Your task to perform on an android device: change notification settings in the gmail app Image 0: 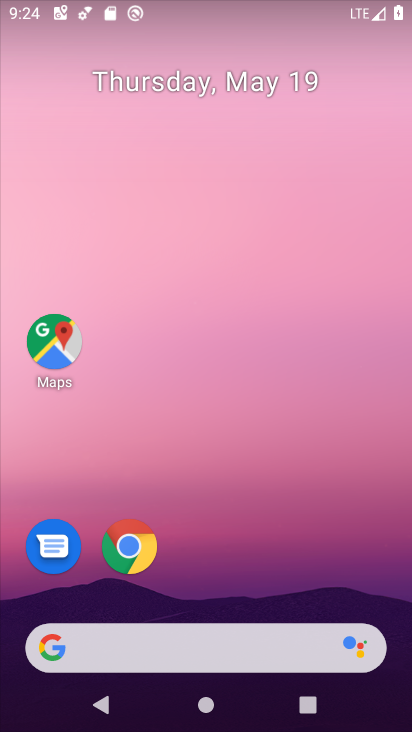
Step 0: drag from (339, 700) to (106, 116)
Your task to perform on an android device: change notification settings in the gmail app Image 1: 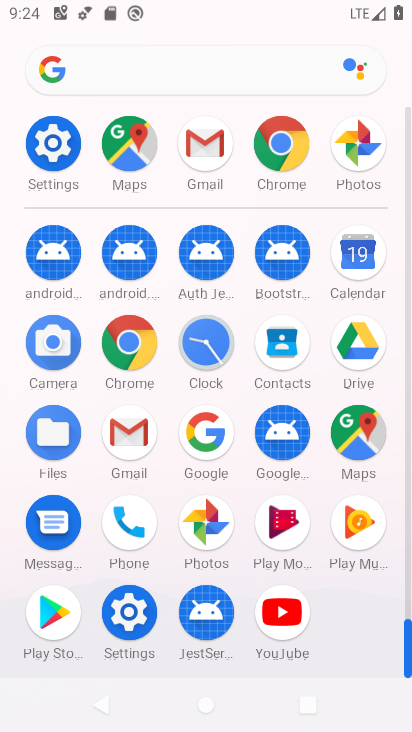
Step 1: click (114, 437)
Your task to perform on an android device: change notification settings in the gmail app Image 2: 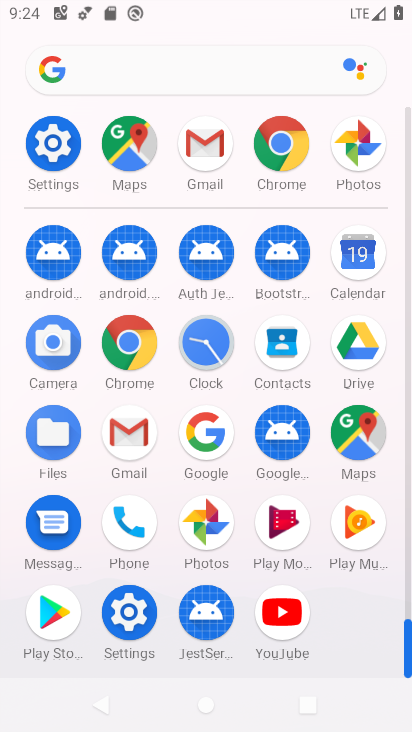
Step 2: click (119, 435)
Your task to perform on an android device: change notification settings in the gmail app Image 3: 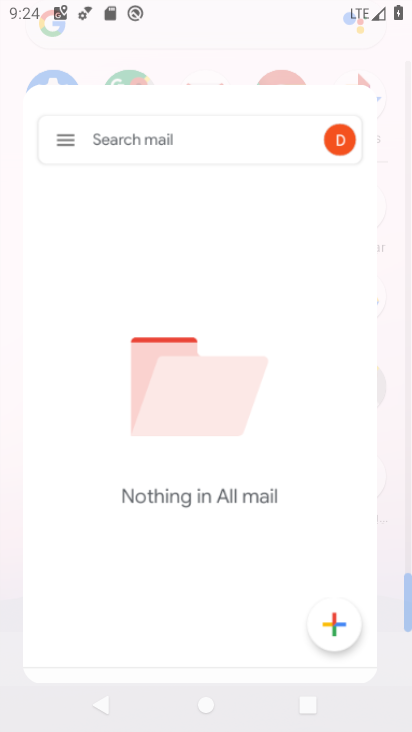
Step 3: click (119, 435)
Your task to perform on an android device: change notification settings in the gmail app Image 4: 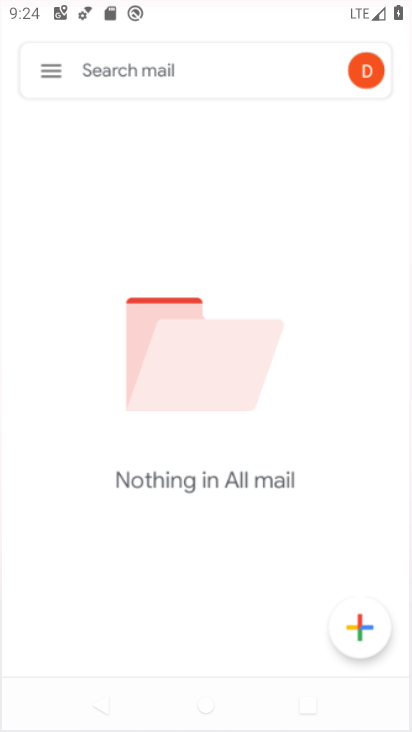
Step 4: click (122, 431)
Your task to perform on an android device: change notification settings in the gmail app Image 5: 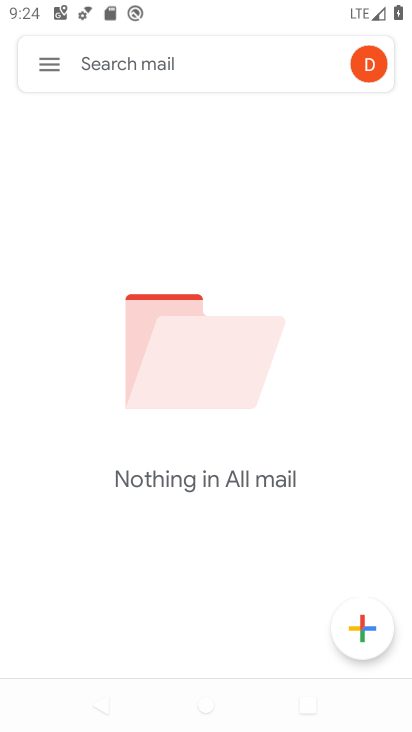
Step 5: click (51, 75)
Your task to perform on an android device: change notification settings in the gmail app Image 6: 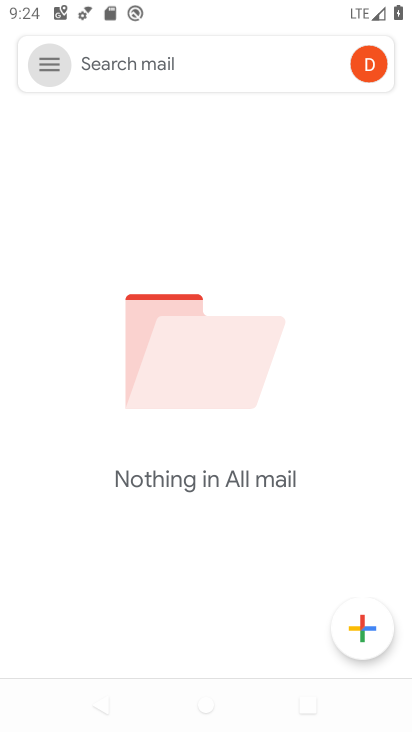
Step 6: click (50, 74)
Your task to perform on an android device: change notification settings in the gmail app Image 7: 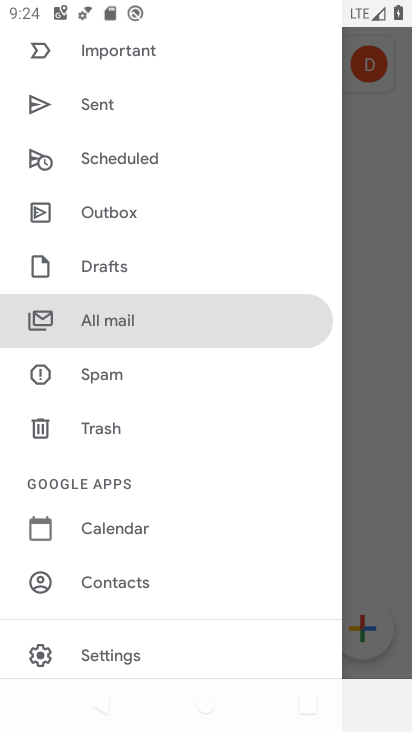
Step 7: click (122, 647)
Your task to perform on an android device: change notification settings in the gmail app Image 8: 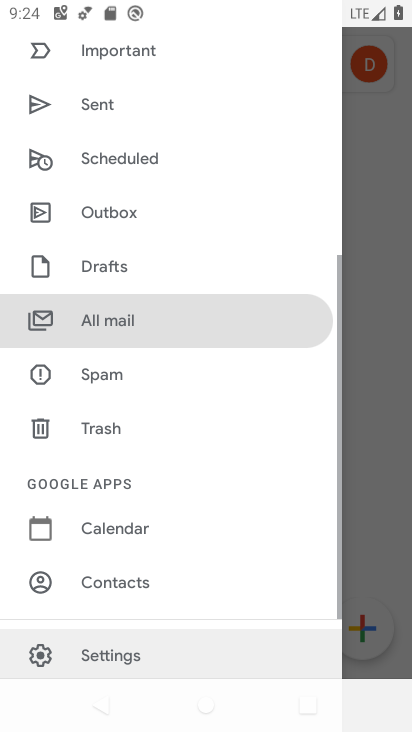
Step 8: click (123, 646)
Your task to perform on an android device: change notification settings in the gmail app Image 9: 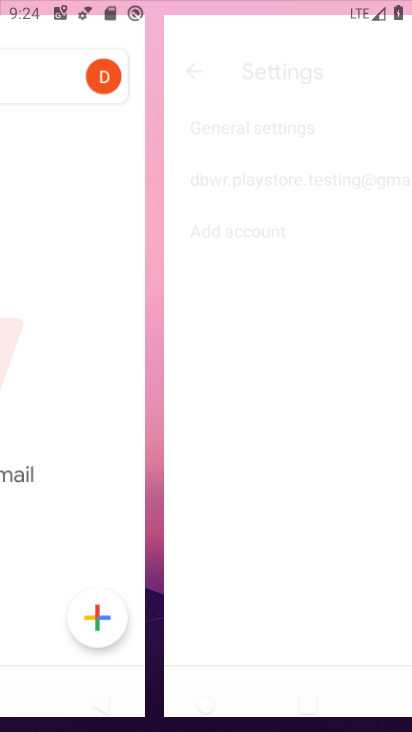
Step 9: click (115, 638)
Your task to perform on an android device: change notification settings in the gmail app Image 10: 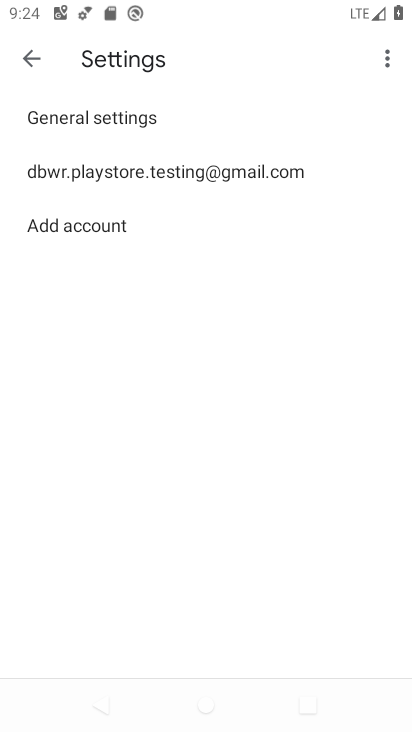
Step 10: click (116, 164)
Your task to perform on an android device: change notification settings in the gmail app Image 11: 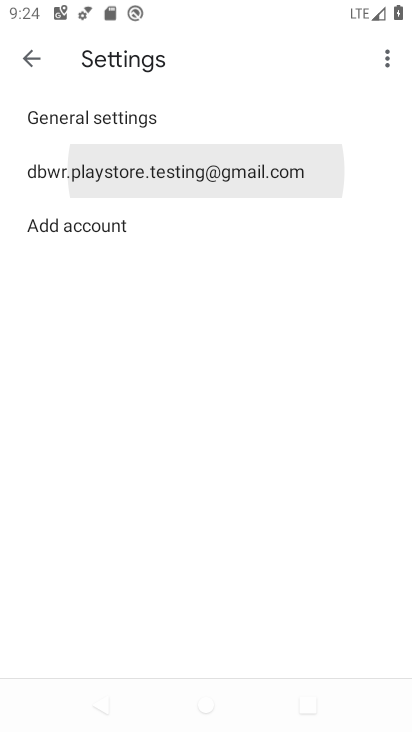
Step 11: click (116, 164)
Your task to perform on an android device: change notification settings in the gmail app Image 12: 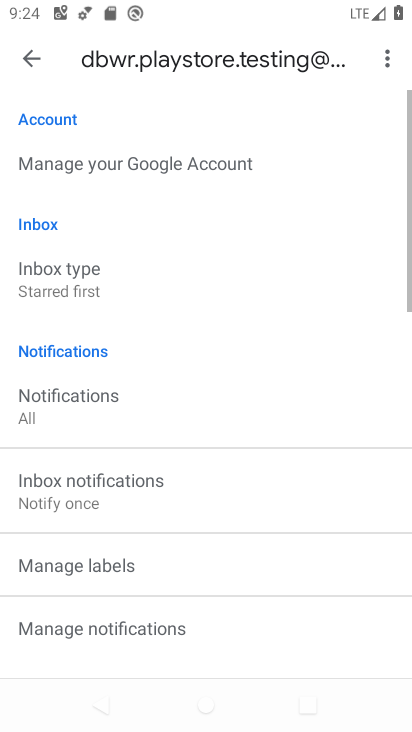
Step 12: click (44, 388)
Your task to perform on an android device: change notification settings in the gmail app Image 13: 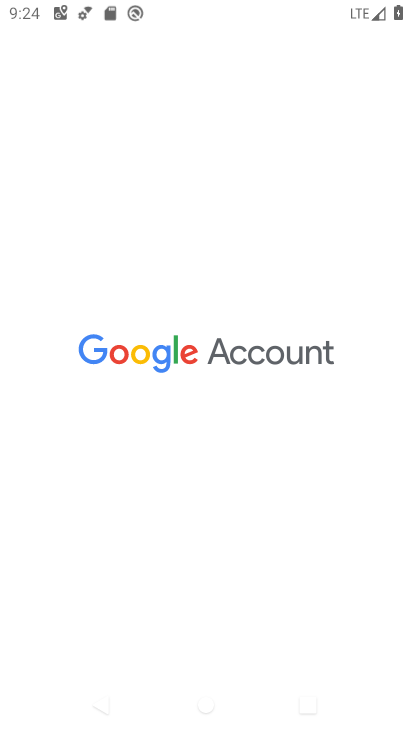
Step 13: click (44, 388)
Your task to perform on an android device: change notification settings in the gmail app Image 14: 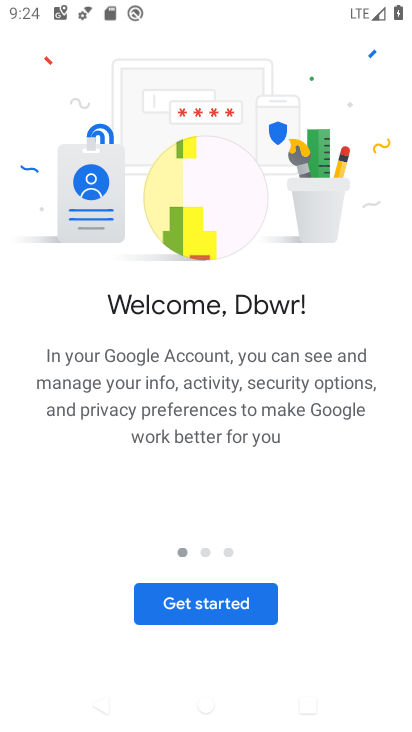
Step 14: click (187, 600)
Your task to perform on an android device: change notification settings in the gmail app Image 15: 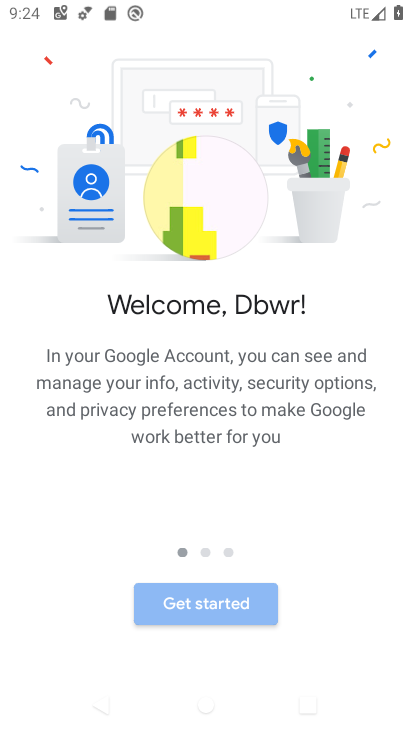
Step 15: click (183, 596)
Your task to perform on an android device: change notification settings in the gmail app Image 16: 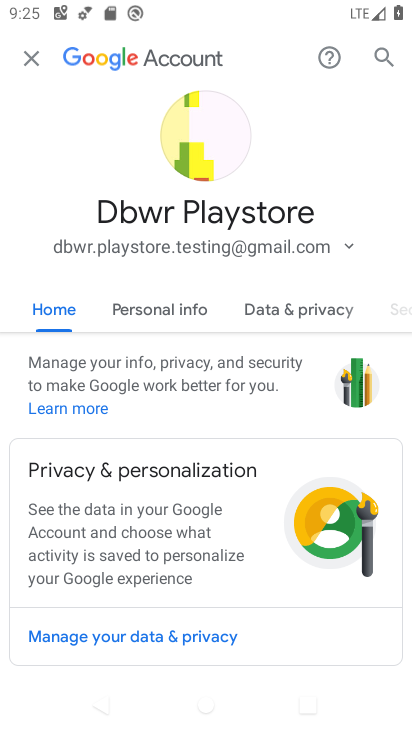
Step 16: click (32, 55)
Your task to perform on an android device: change notification settings in the gmail app Image 17: 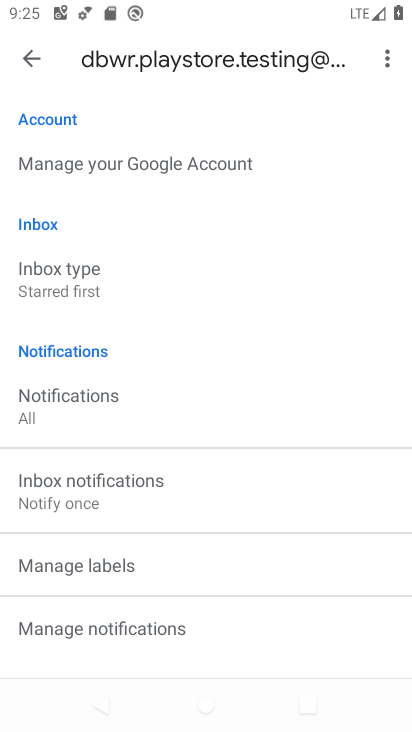
Step 17: click (60, 406)
Your task to perform on an android device: change notification settings in the gmail app Image 18: 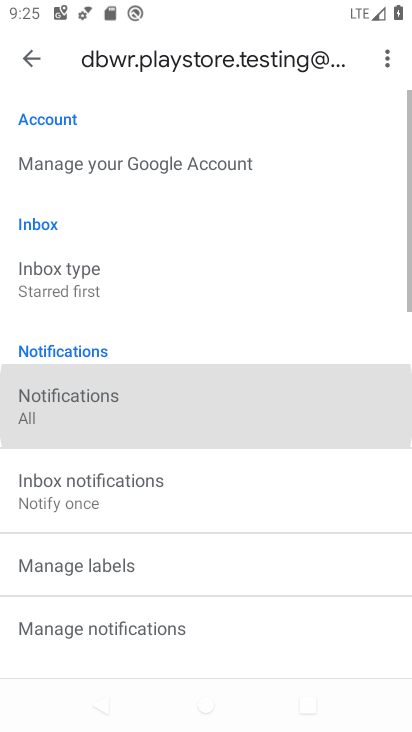
Step 18: click (59, 405)
Your task to perform on an android device: change notification settings in the gmail app Image 19: 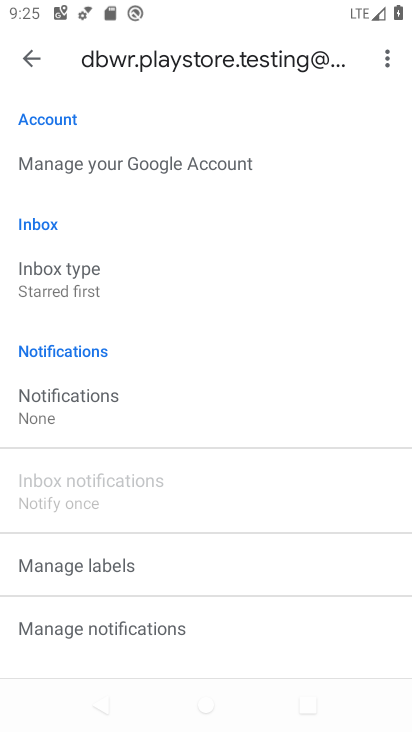
Step 19: click (24, 47)
Your task to perform on an android device: change notification settings in the gmail app Image 20: 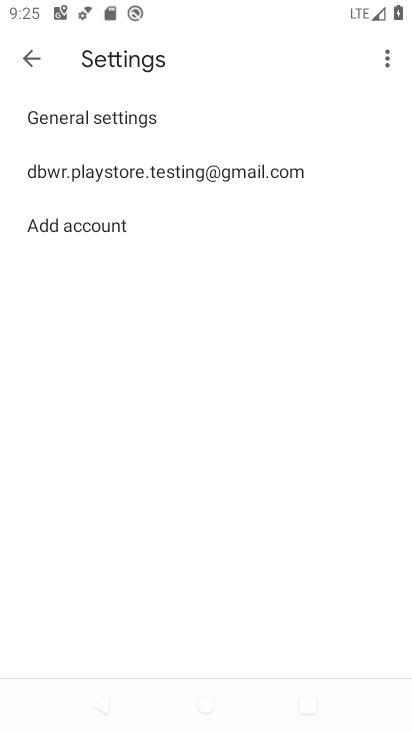
Step 20: press back button
Your task to perform on an android device: change notification settings in the gmail app Image 21: 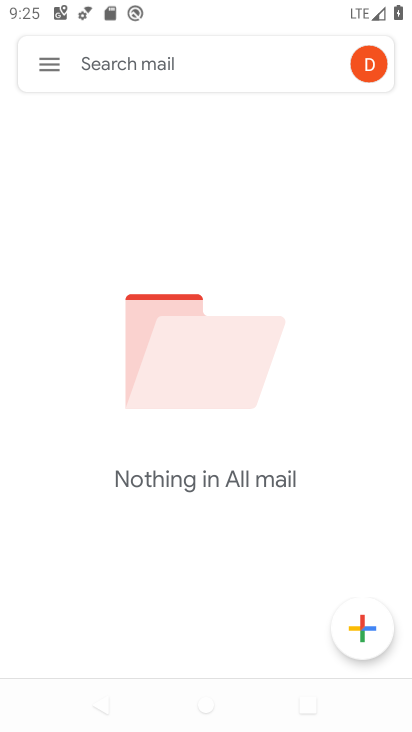
Step 21: press back button
Your task to perform on an android device: change notification settings in the gmail app Image 22: 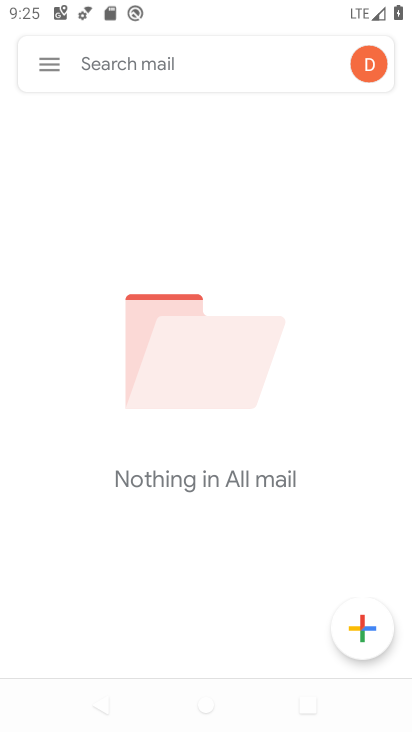
Step 22: press back button
Your task to perform on an android device: change notification settings in the gmail app Image 23: 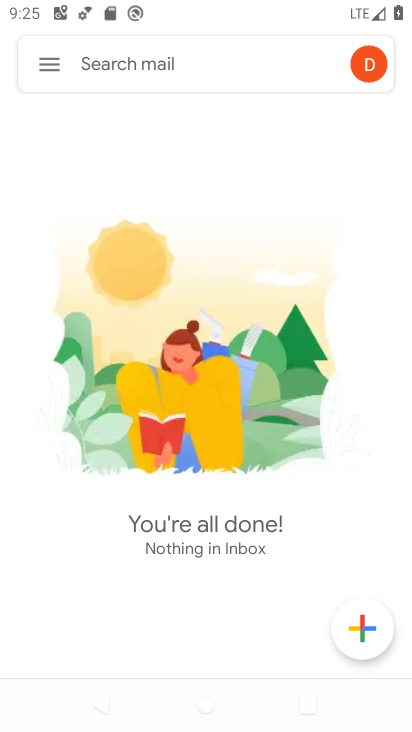
Step 23: press back button
Your task to perform on an android device: change notification settings in the gmail app Image 24: 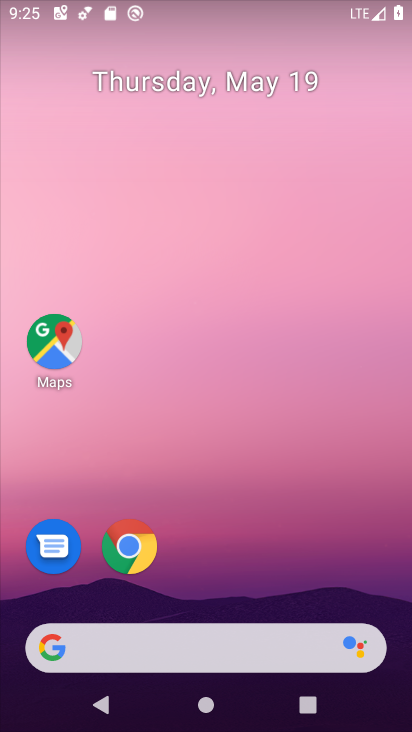
Step 24: press home button
Your task to perform on an android device: change notification settings in the gmail app Image 25: 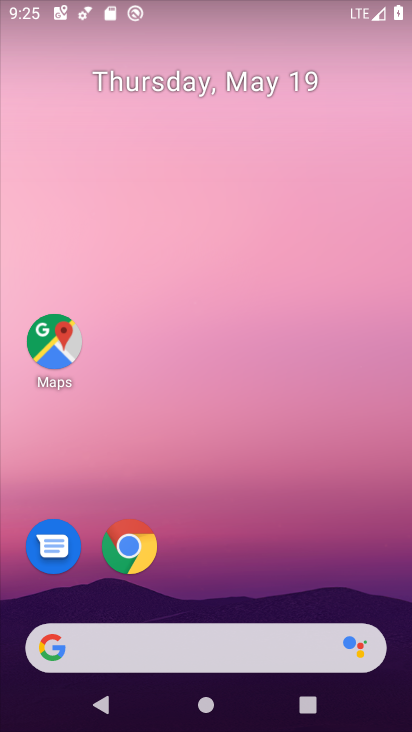
Step 25: drag from (365, 729) to (112, 18)
Your task to perform on an android device: change notification settings in the gmail app Image 26: 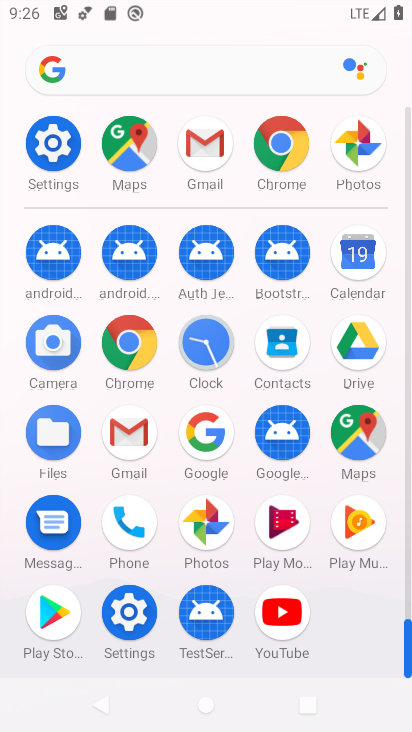
Step 26: click (142, 434)
Your task to perform on an android device: change notification settings in the gmail app Image 27: 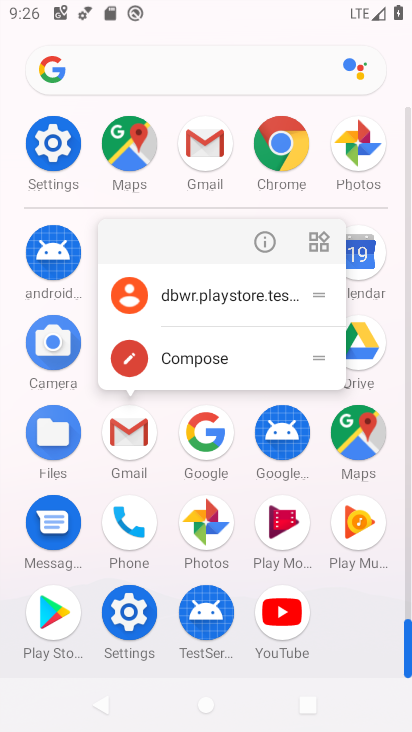
Step 27: click (122, 431)
Your task to perform on an android device: change notification settings in the gmail app Image 28: 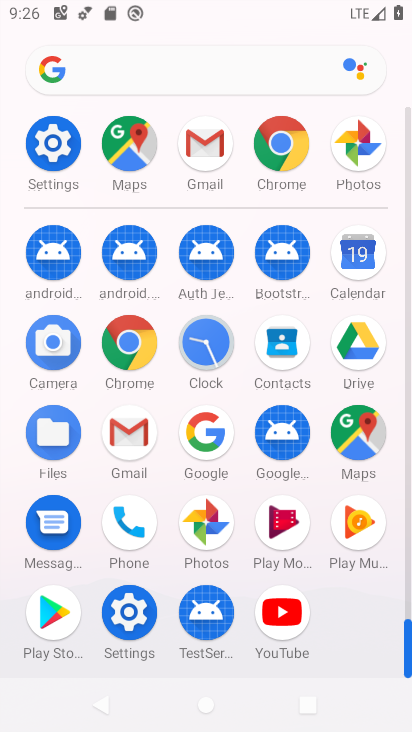
Step 28: click (122, 429)
Your task to perform on an android device: change notification settings in the gmail app Image 29: 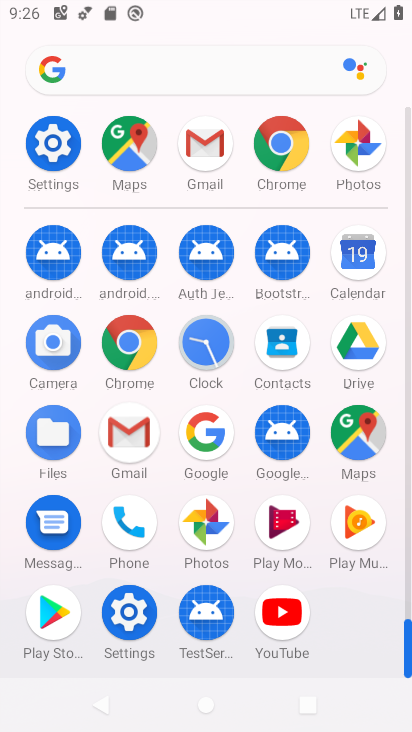
Step 29: click (124, 427)
Your task to perform on an android device: change notification settings in the gmail app Image 30: 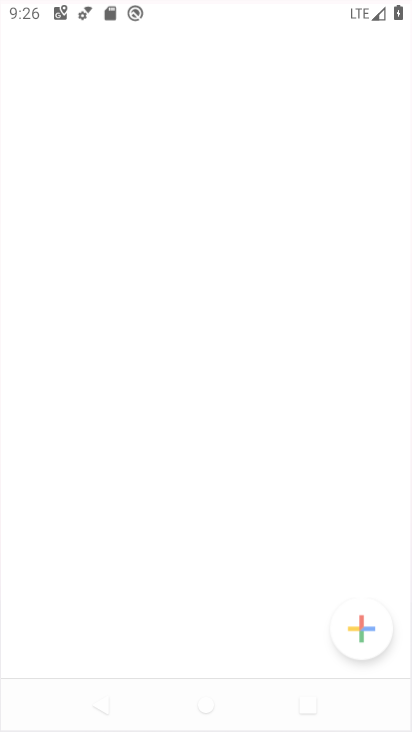
Step 30: click (129, 427)
Your task to perform on an android device: change notification settings in the gmail app Image 31: 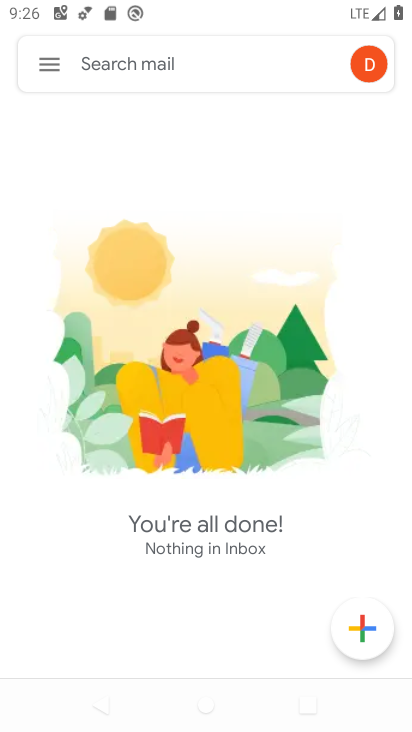
Step 31: click (53, 54)
Your task to perform on an android device: change notification settings in the gmail app Image 32: 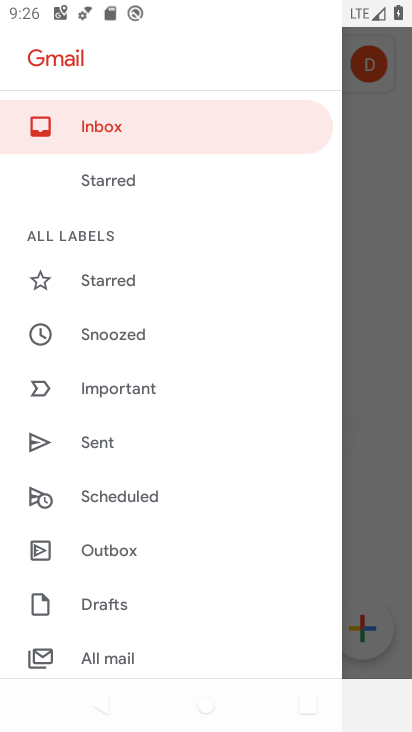
Step 32: click (109, 629)
Your task to perform on an android device: change notification settings in the gmail app Image 33: 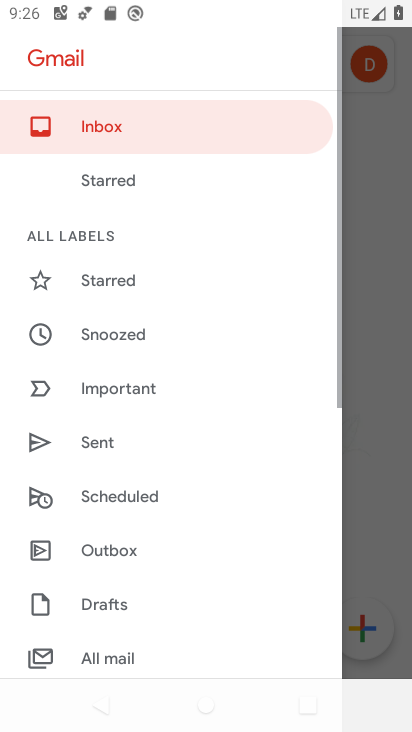
Step 33: click (107, 661)
Your task to perform on an android device: change notification settings in the gmail app Image 34: 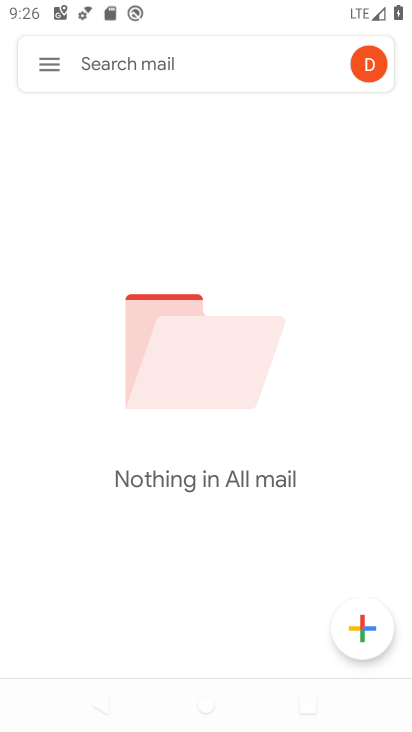
Step 34: task complete